Your task to perform on an android device: turn off sleep mode Image 0: 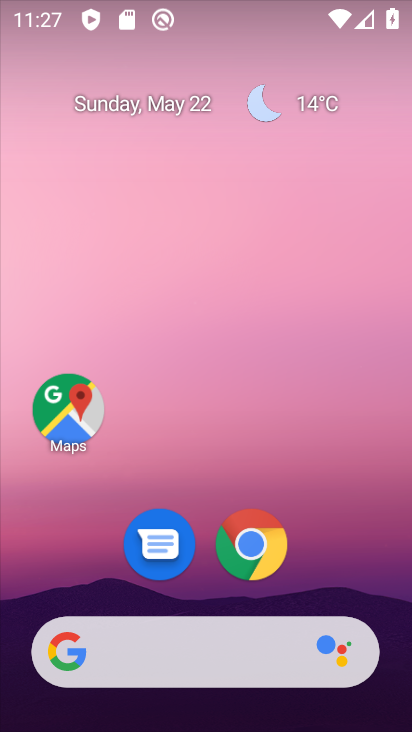
Step 0: drag from (289, 589) to (211, 35)
Your task to perform on an android device: turn off sleep mode Image 1: 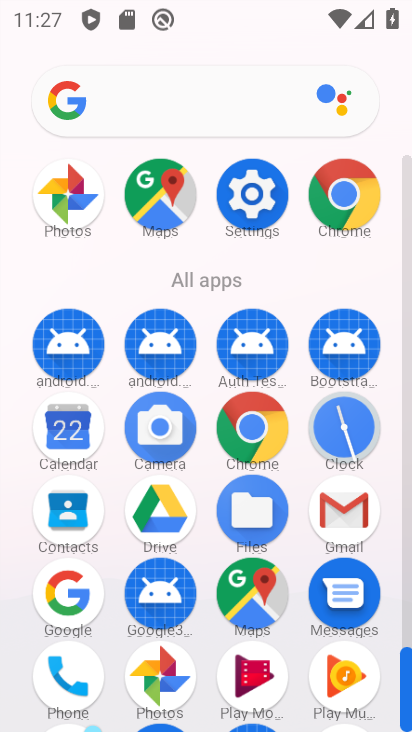
Step 1: click (253, 198)
Your task to perform on an android device: turn off sleep mode Image 2: 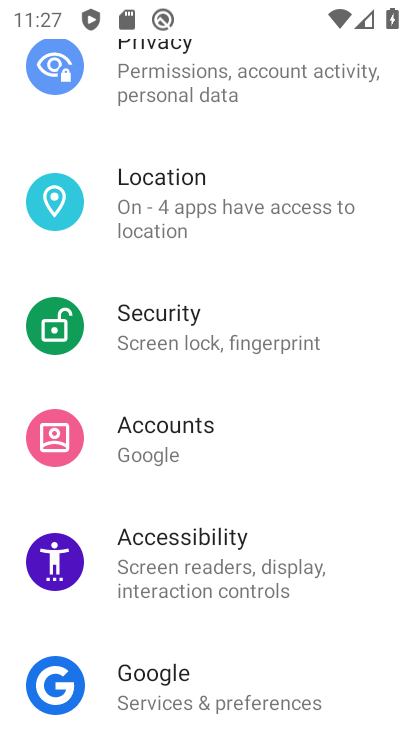
Step 2: drag from (256, 517) to (256, 235)
Your task to perform on an android device: turn off sleep mode Image 3: 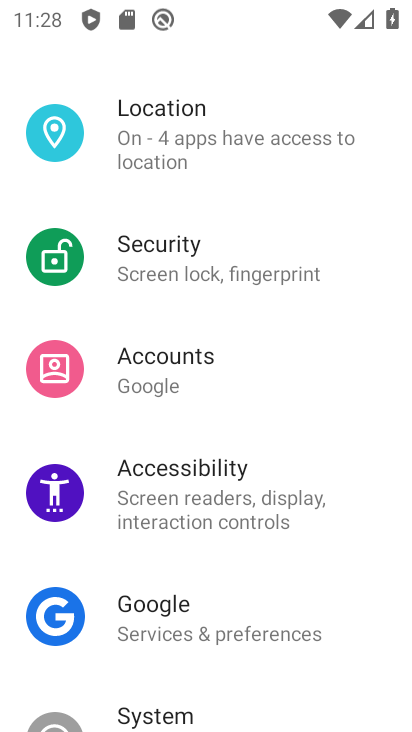
Step 3: drag from (257, 662) to (248, 379)
Your task to perform on an android device: turn off sleep mode Image 4: 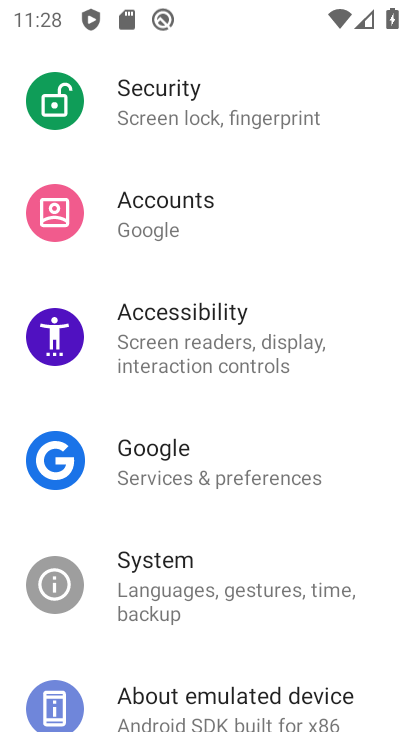
Step 4: click (205, 624)
Your task to perform on an android device: turn off sleep mode Image 5: 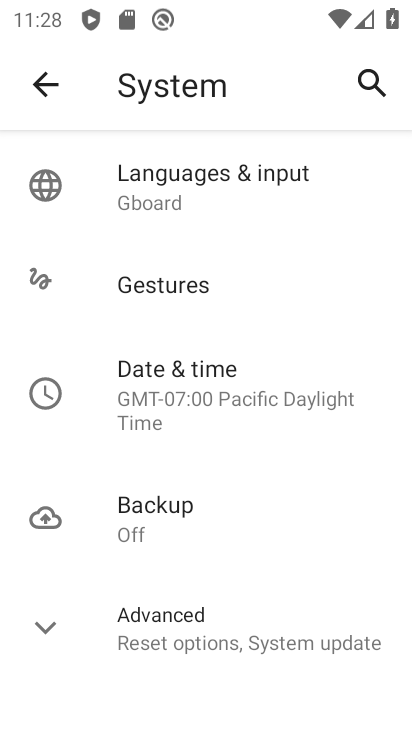
Step 5: task complete